Your task to perform on an android device: set the stopwatch Image 0: 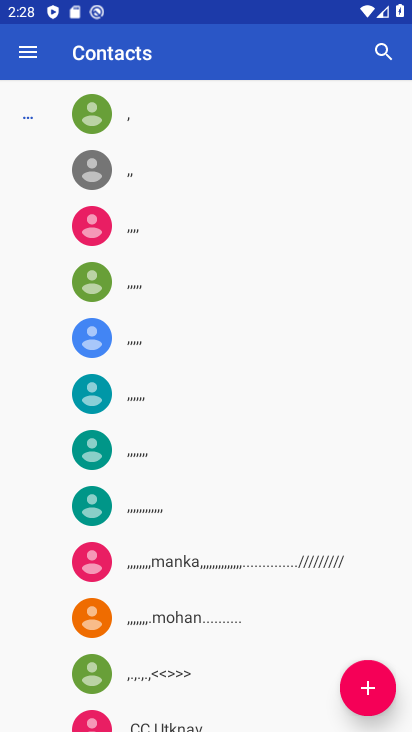
Step 0: press home button
Your task to perform on an android device: set the stopwatch Image 1: 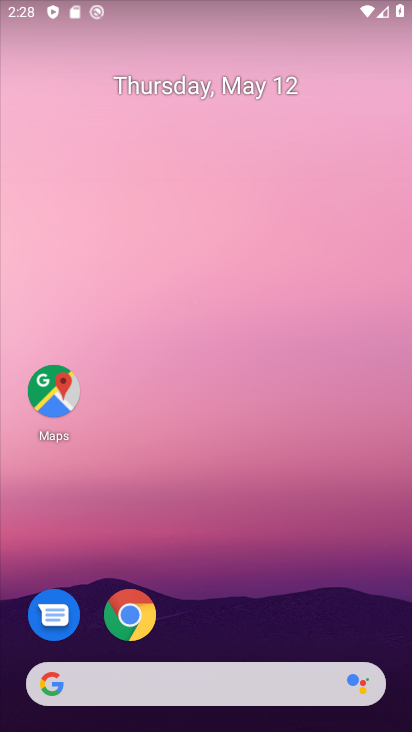
Step 1: drag from (27, 703) to (324, 197)
Your task to perform on an android device: set the stopwatch Image 2: 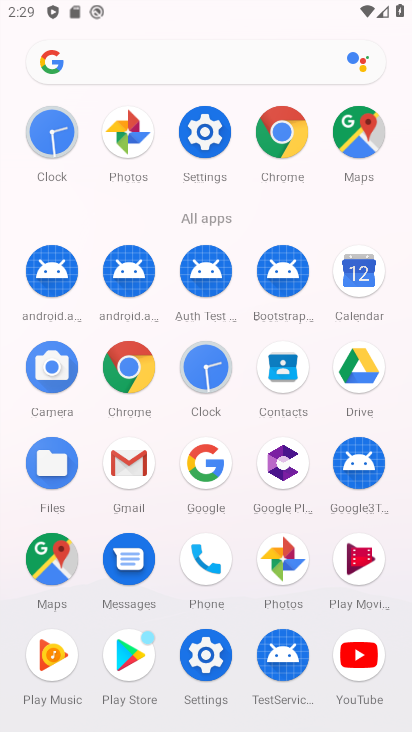
Step 2: click (218, 370)
Your task to perform on an android device: set the stopwatch Image 3: 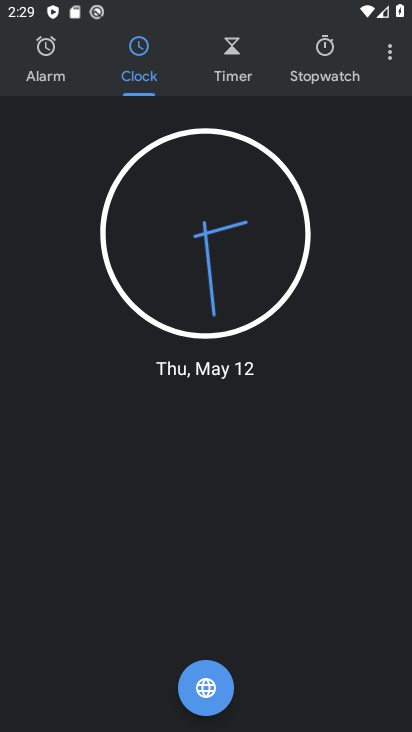
Step 3: click (339, 61)
Your task to perform on an android device: set the stopwatch Image 4: 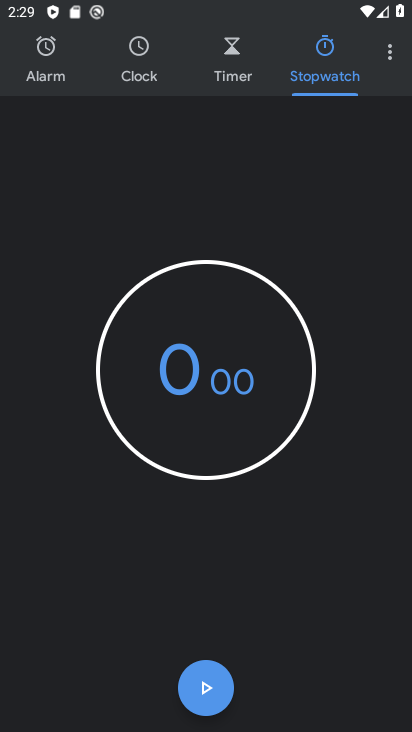
Step 4: click (195, 704)
Your task to perform on an android device: set the stopwatch Image 5: 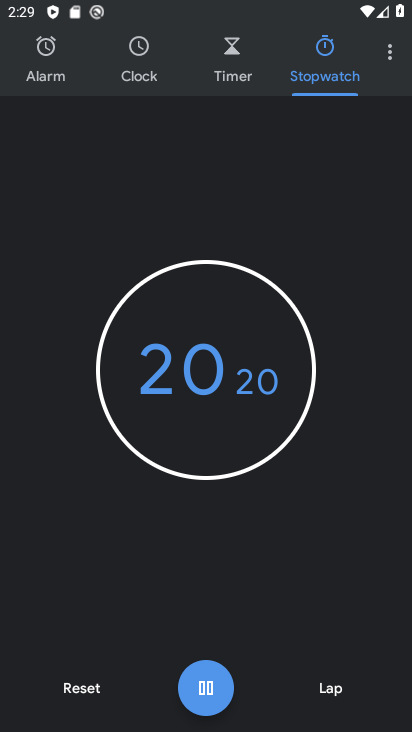
Step 5: task complete